Your task to perform on an android device: Open Google Chrome and open the bookmarks view Image 0: 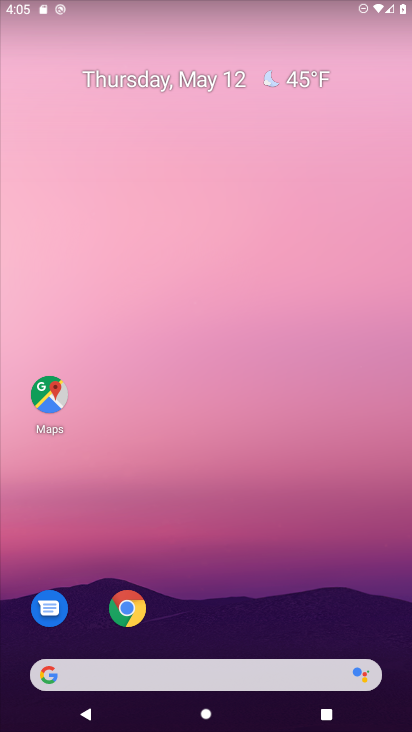
Step 0: click (134, 588)
Your task to perform on an android device: Open Google Chrome and open the bookmarks view Image 1: 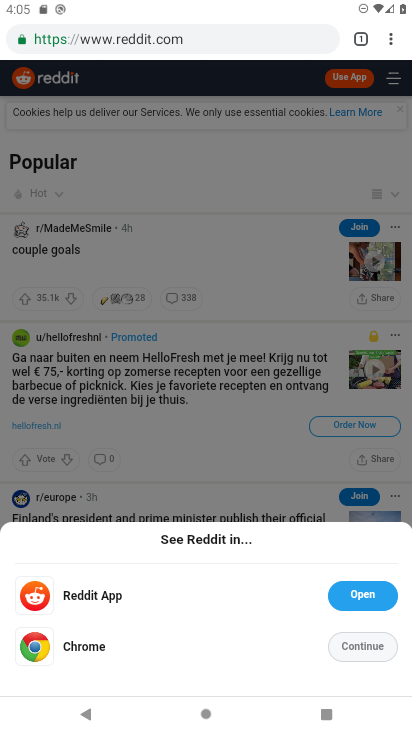
Step 1: click (357, 652)
Your task to perform on an android device: Open Google Chrome and open the bookmarks view Image 2: 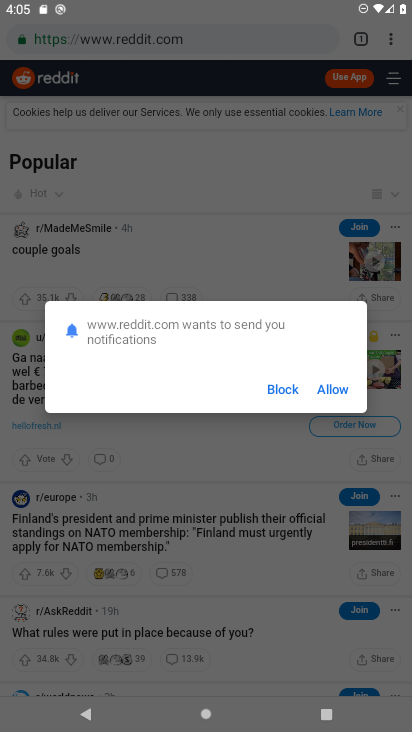
Step 2: click (340, 375)
Your task to perform on an android device: Open Google Chrome and open the bookmarks view Image 3: 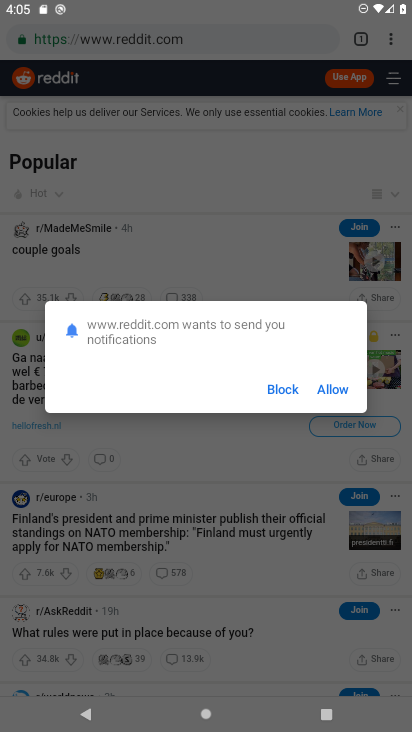
Step 3: click (340, 375)
Your task to perform on an android device: Open Google Chrome and open the bookmarks view Image 4: 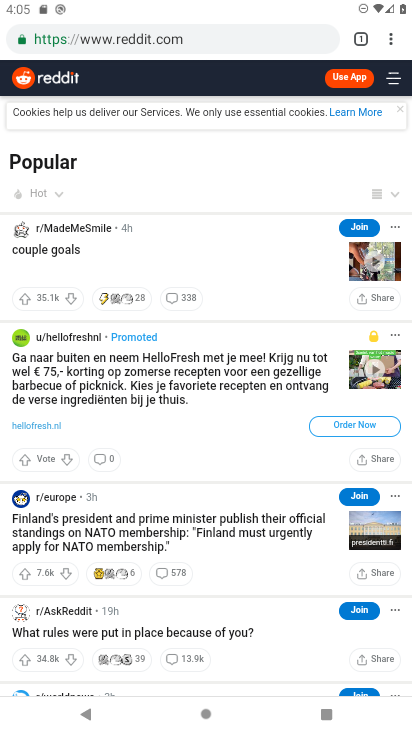
Step 4: click (388, 59)
Your task to perform on an android device: Open Google Chrome and open the bookmarks view Image 5: 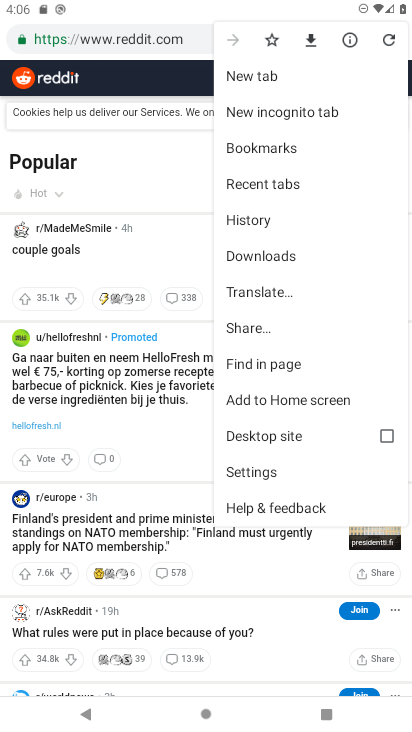
Step 5: click (249, 157)
Your task to perform on an android device: Open Google Chrome and open the bookmarks view Image 6: 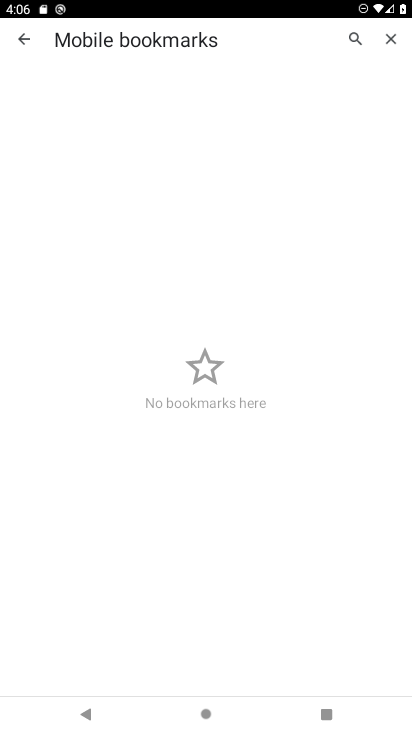
Step 6: task complete